Your task to perform on an android device: turn off location history Image 0: 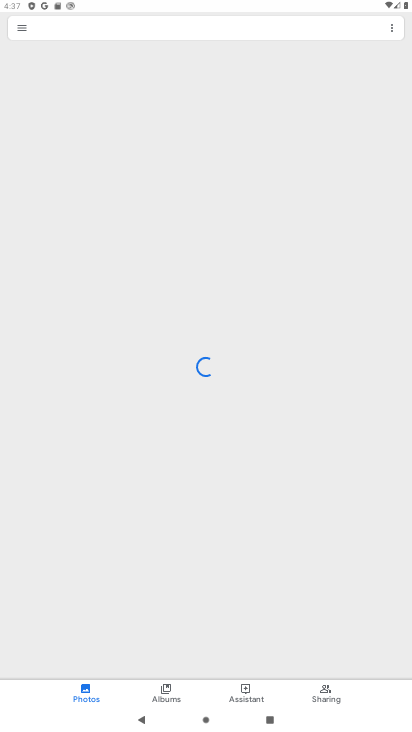
Step 0: press home button
Your task to perform on an android device: turn off location history Image 1: 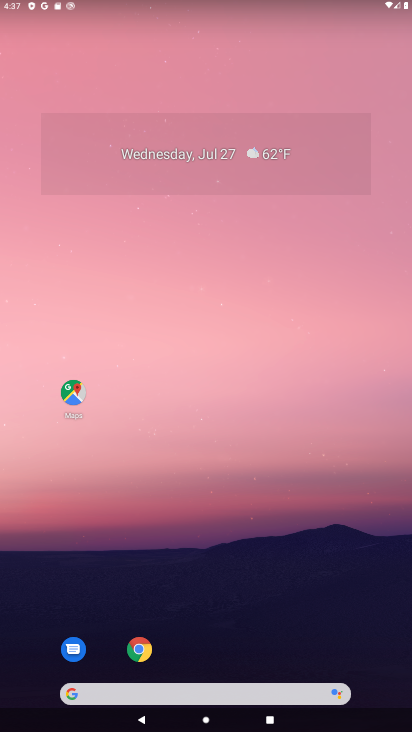
Step 1: drag from (269, 566) to (302, 23)
Your task to perform on an android device: turn off location history Image 2: 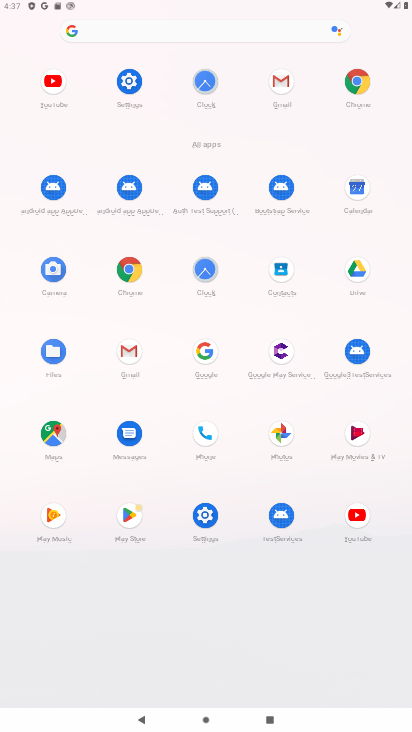
Step 2: click (212, 513)
Your task to perform on an android device: turn off location history Image 3: 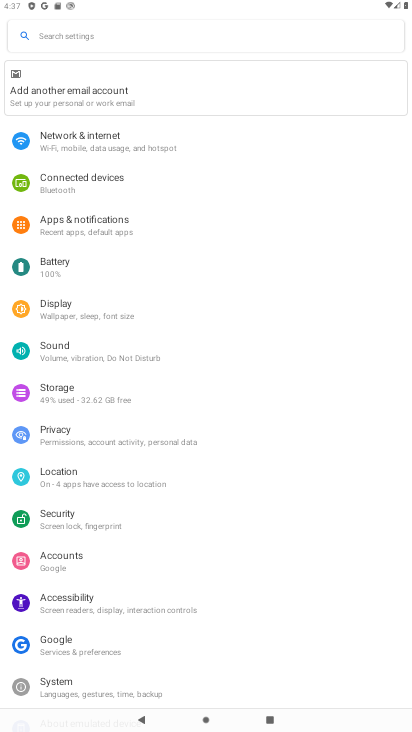
Step 3: click (65, 474)
Your task to perform on an android device: turn off location history Image 4: 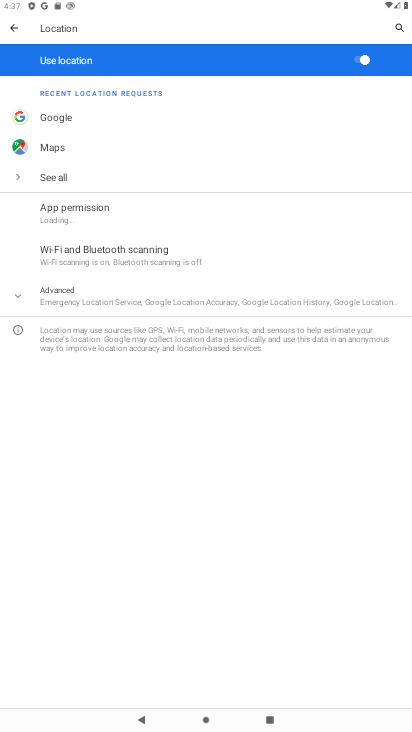
Step 4: task complete